Your task to perform on an android device: How big is a blue whale? Image 0: 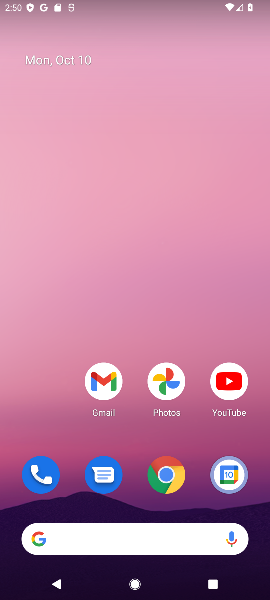
Step 0: drag from (158, 452) to (152, 177)
Your task to perform on an android device: How big is a blue whale? Image 1: 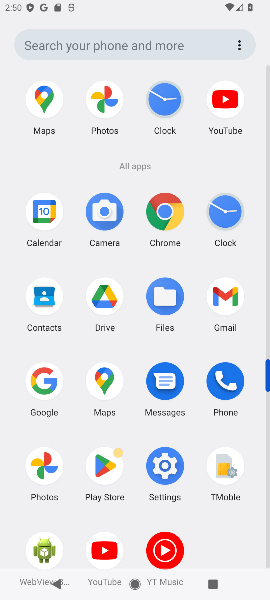
Step 1: click (46, 393)
Your task to perform on an android device: How big is a blue whale? Image 2: 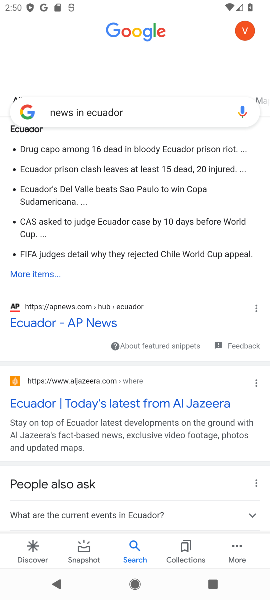
Step 2: click (148, 115)
Your task to perform on an android device: How big is a blue whale? Image 3: 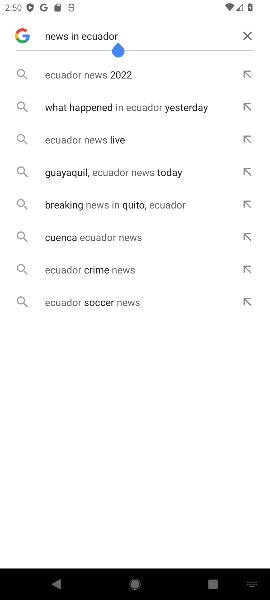
Step 3: click (239, 31)
Your task to perform on an android device: How big is a blue whale? Image 4: 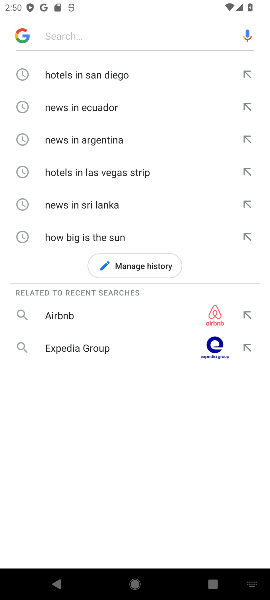
Step 4: type "How big is a blue whale?"
Your task to perform on an android device: How big is a blue whale? Image 5: 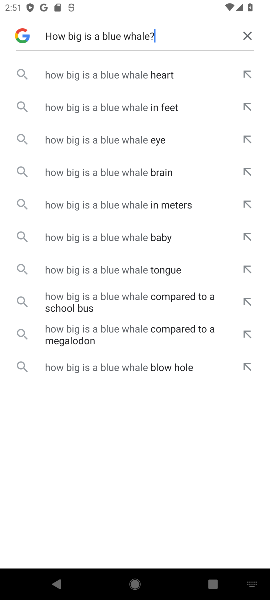
Step 5: click (97, 207)
Your task to perform on an android device: How big is a blue whale? Image 6: 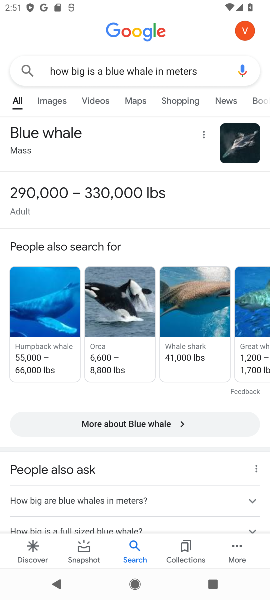
Step 6: task complete